Your task to perform on an android device: Open calendar and show me the fourth week of next month Image 0: 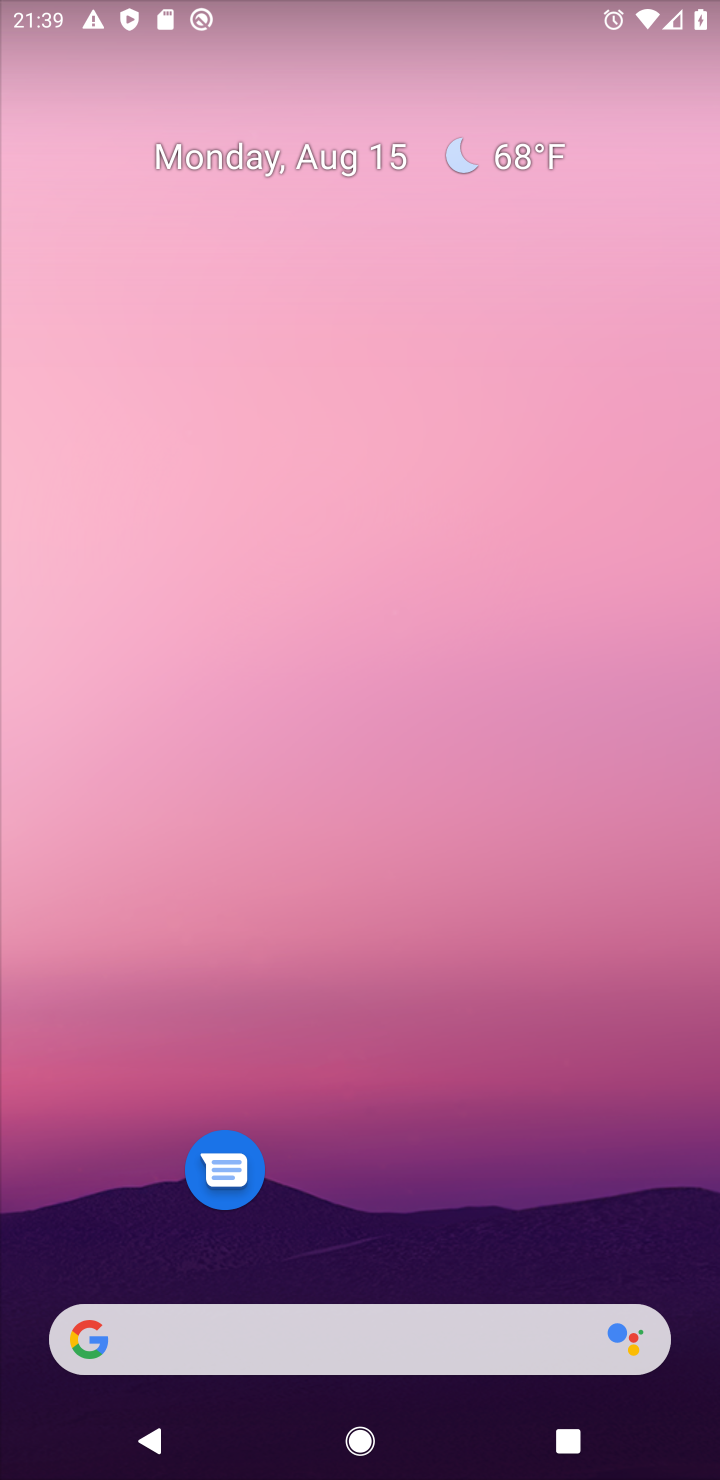
Step 0: drag from (590, 392) to (634, 2)
Your task to perform on an android device: Open calendar and show me the fourth week of next month Image 1: 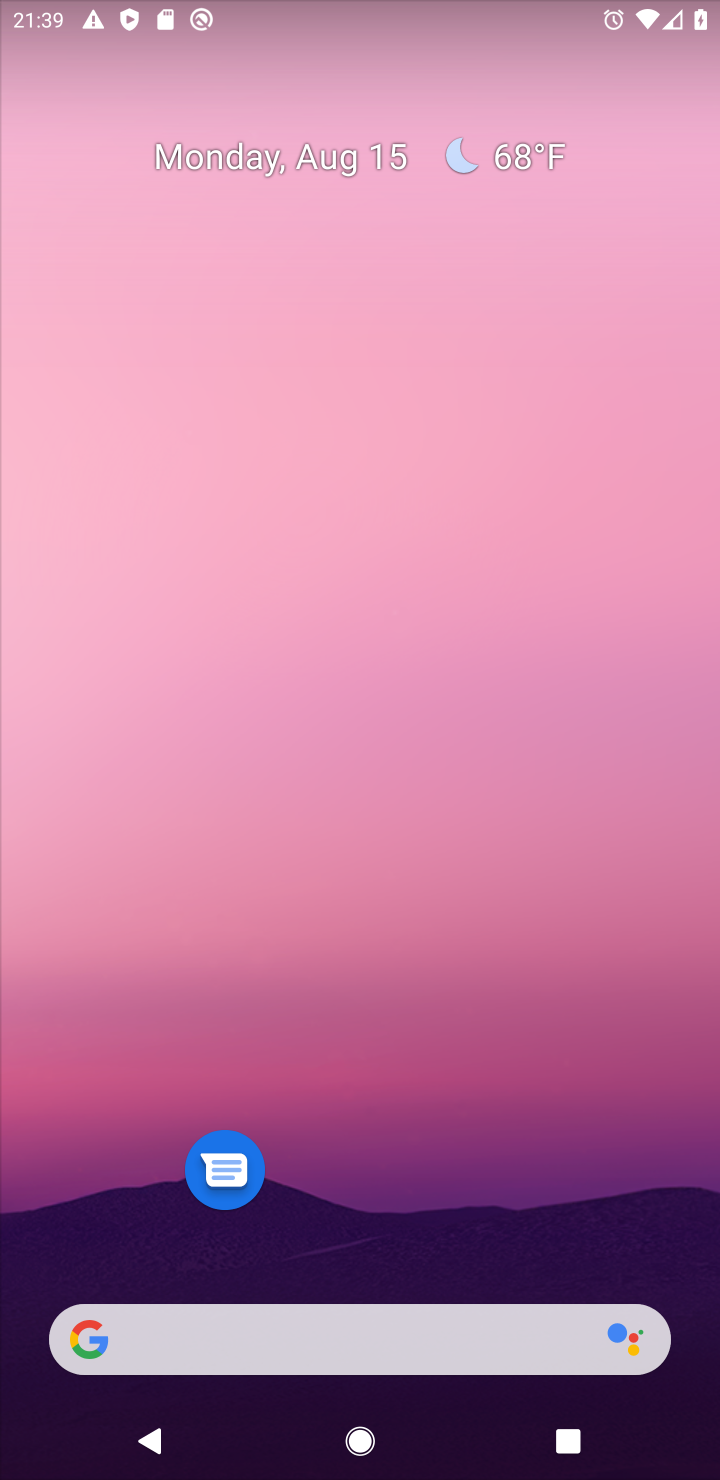
Step 1: drag from (458, 1357) to (477, 22)
Your task to perform on an android device: Open calendar and show me the fourth week of next month Image 2: 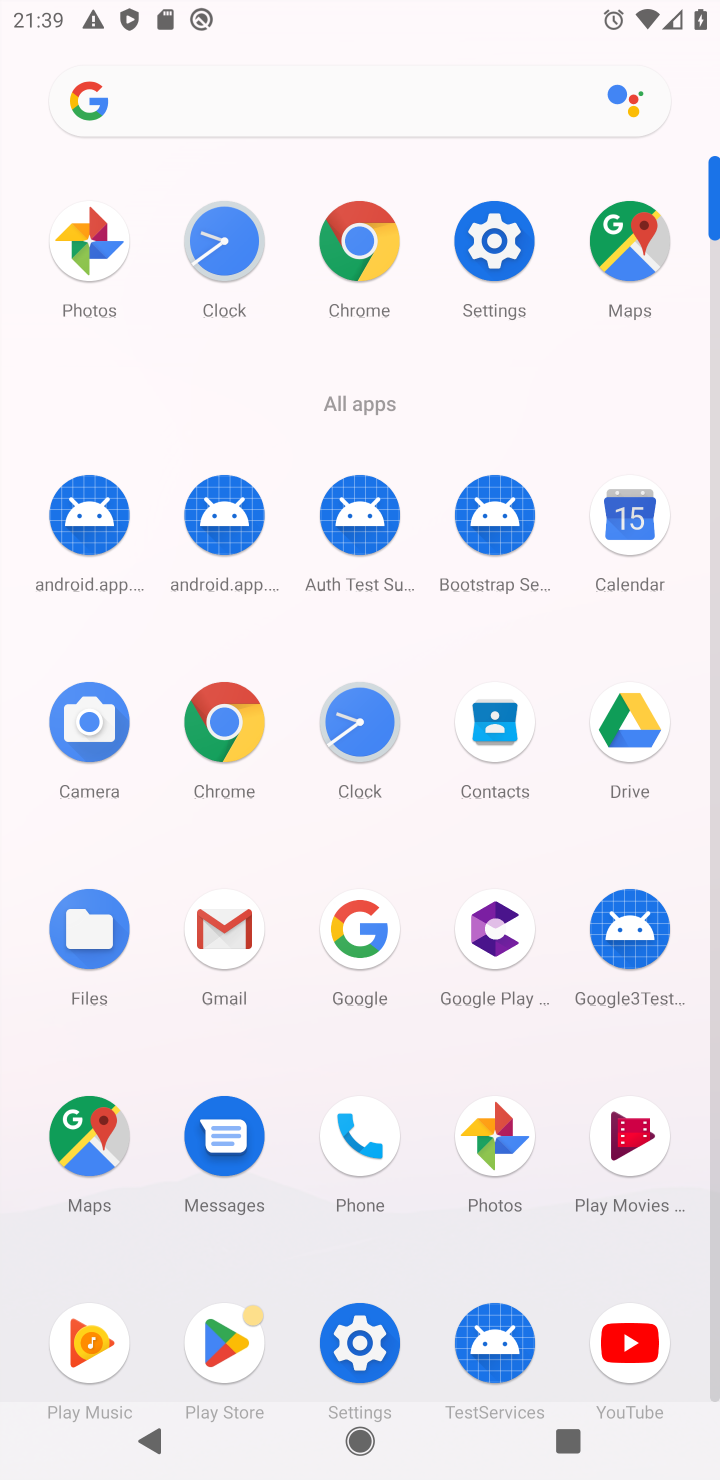
Step 2: click (642, 533)
Your task to perform on an android device: Open calendar and show me the fourth week of next month Image 3: 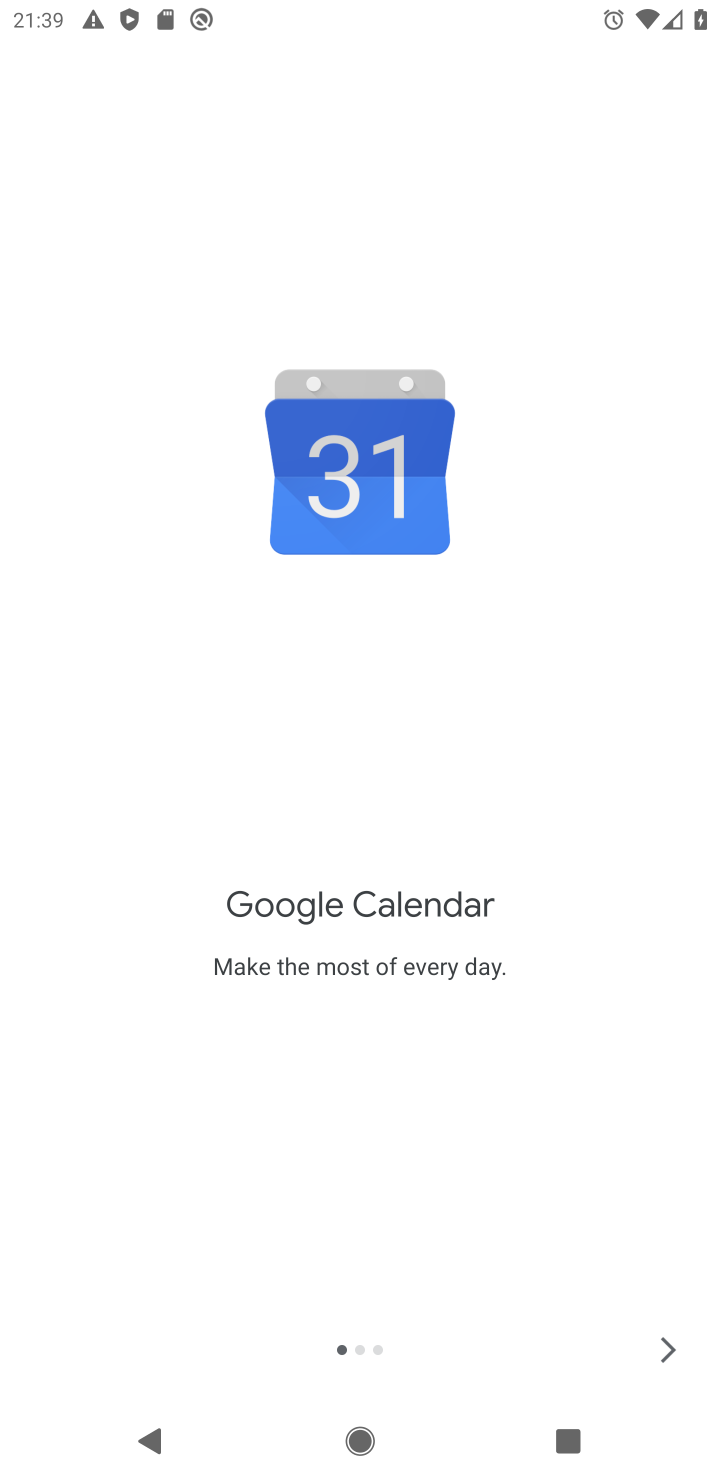
Step 3: click (661, 1360)
Your task to perform on an android device: Open calendar and show me the fourth week of next month Image 4: 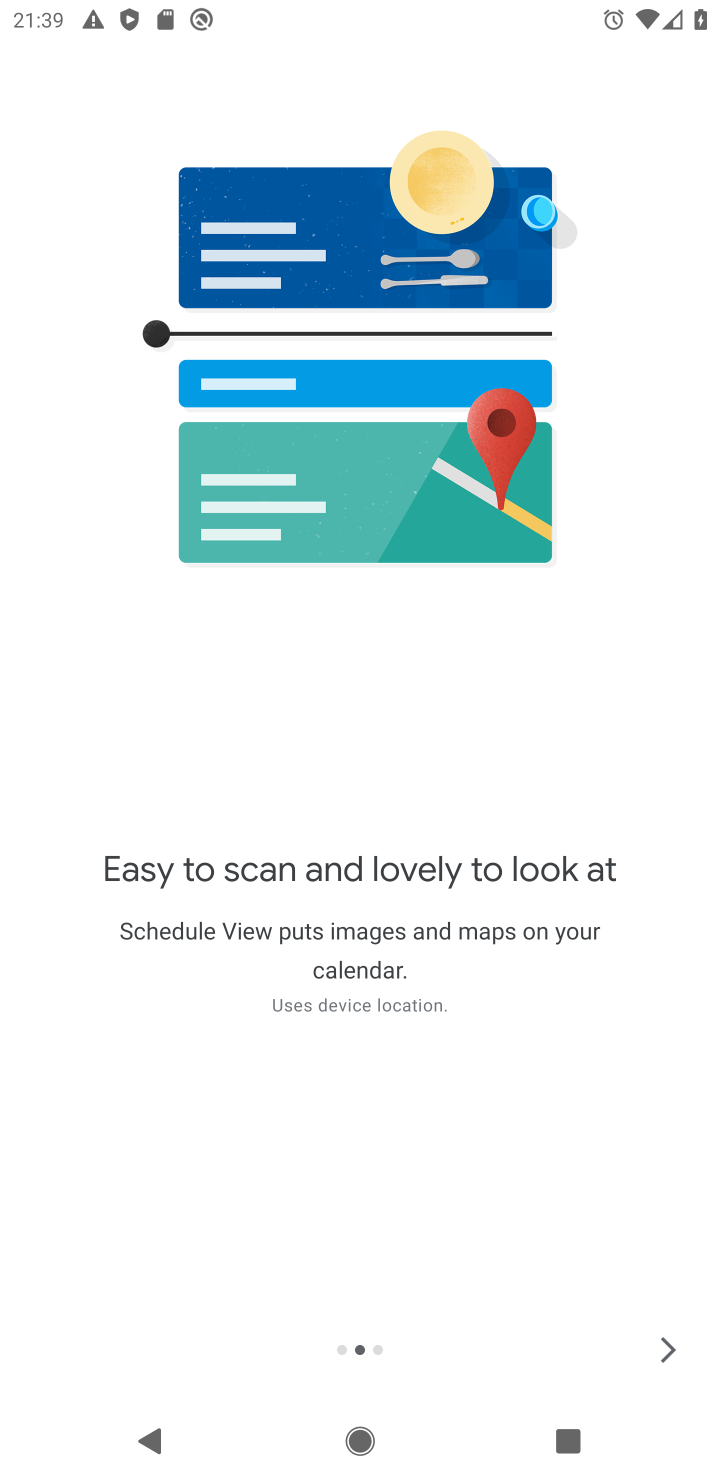
Step 4: click (665, 1351)
Your task to perform on an android device: Open calendar and show me the fourth week of next month Image 5: 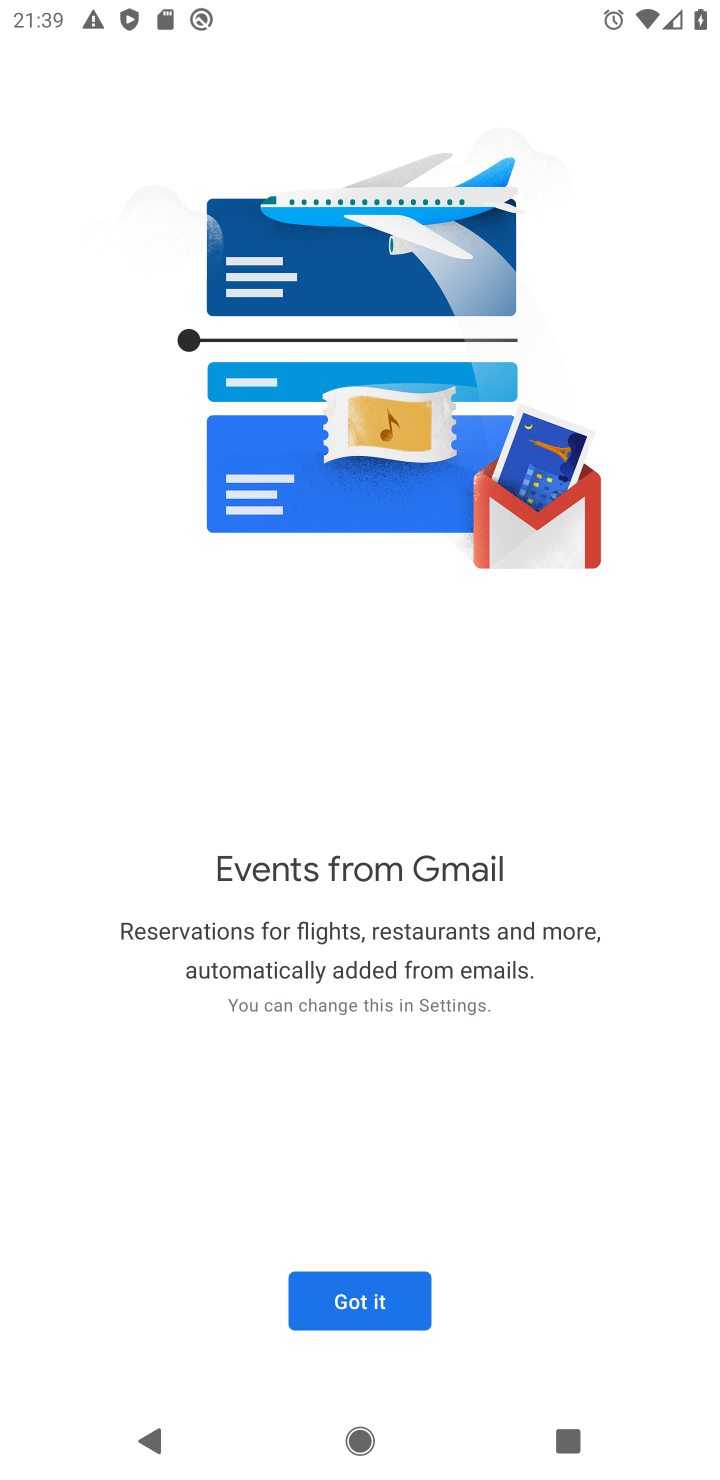
Step 5: click (394, 1298)
Your task to perform on an android device: Open calendar and show me the fourth week of next month Image 6: 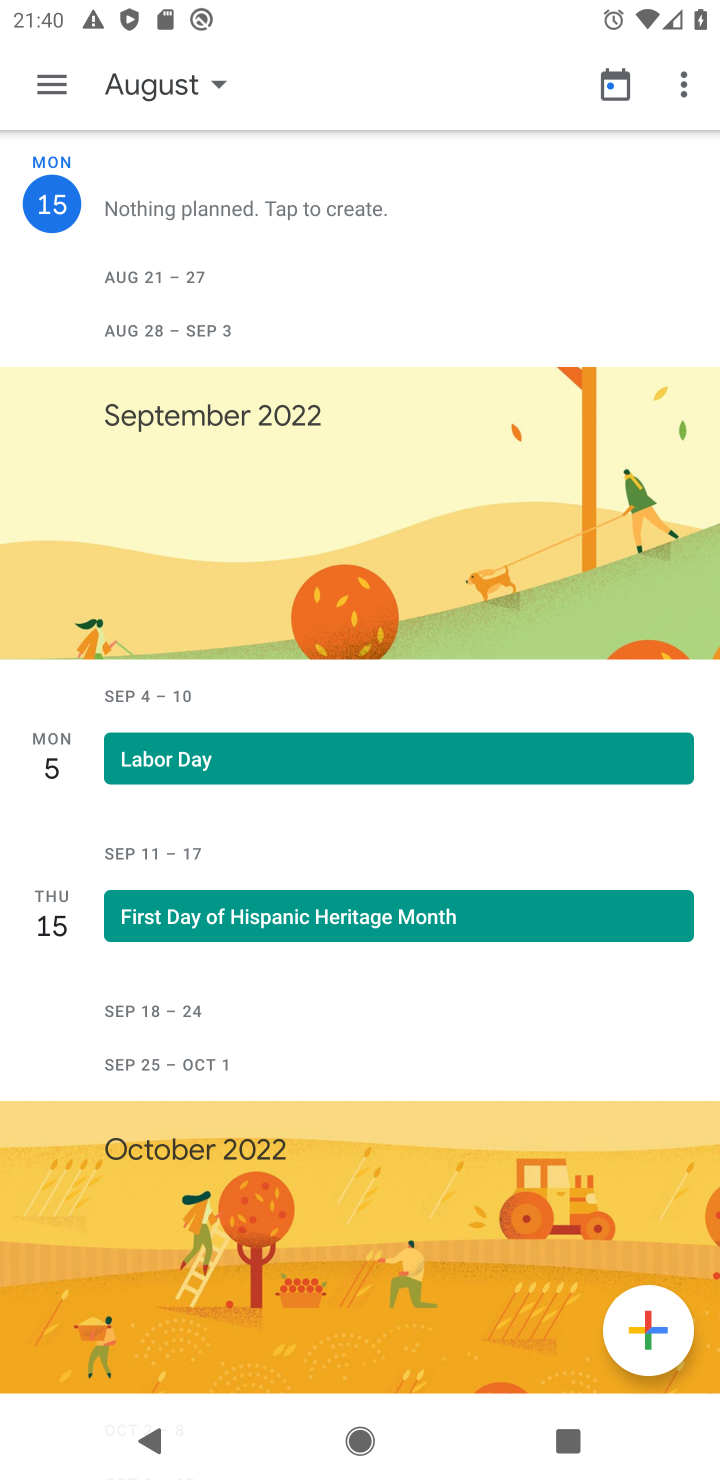
Step 6: click (121, 87)
Your task to perform on an android device: Open calendar and show me the fourth week of next month Image 7: 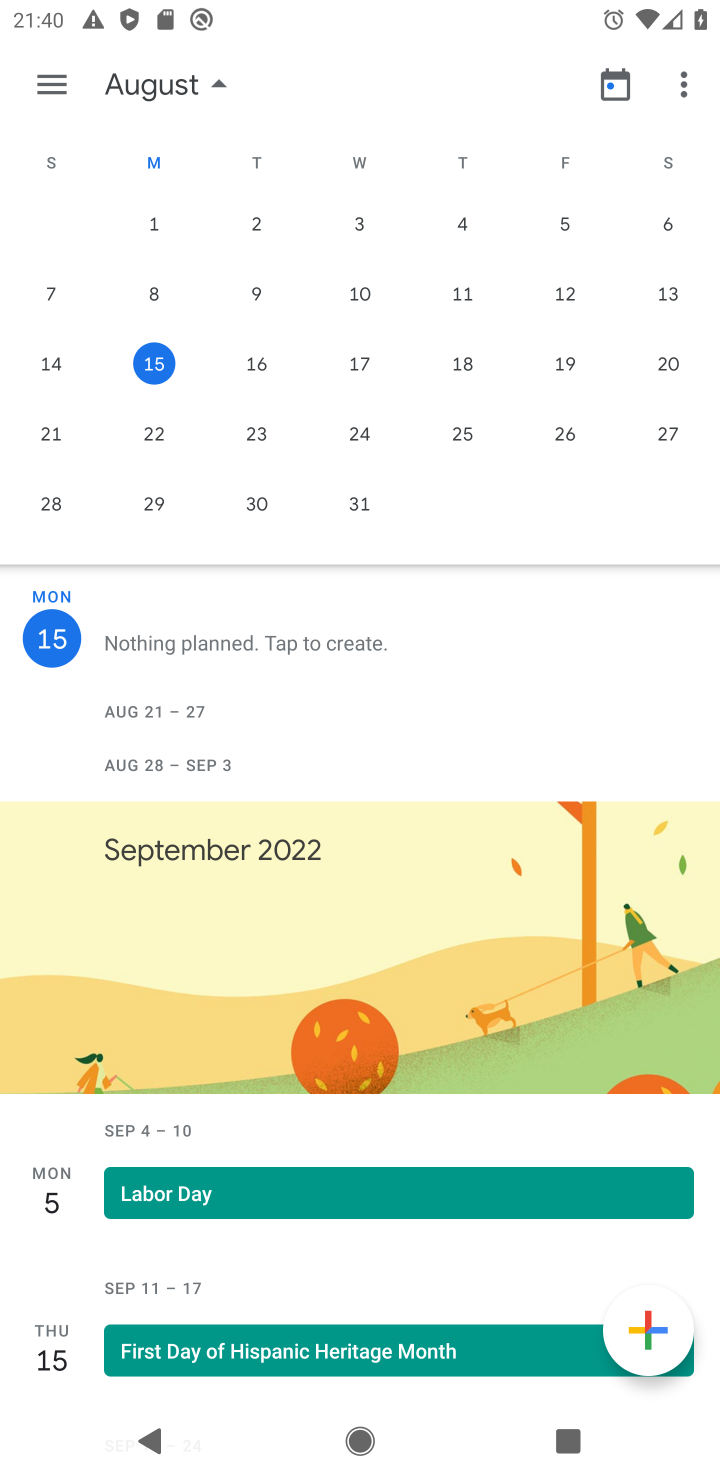
Step 7: drag from (88, 438) to (0, 423)
Your task to perform on an android device: Open calendar and show me the fourth week of next month Image 8: 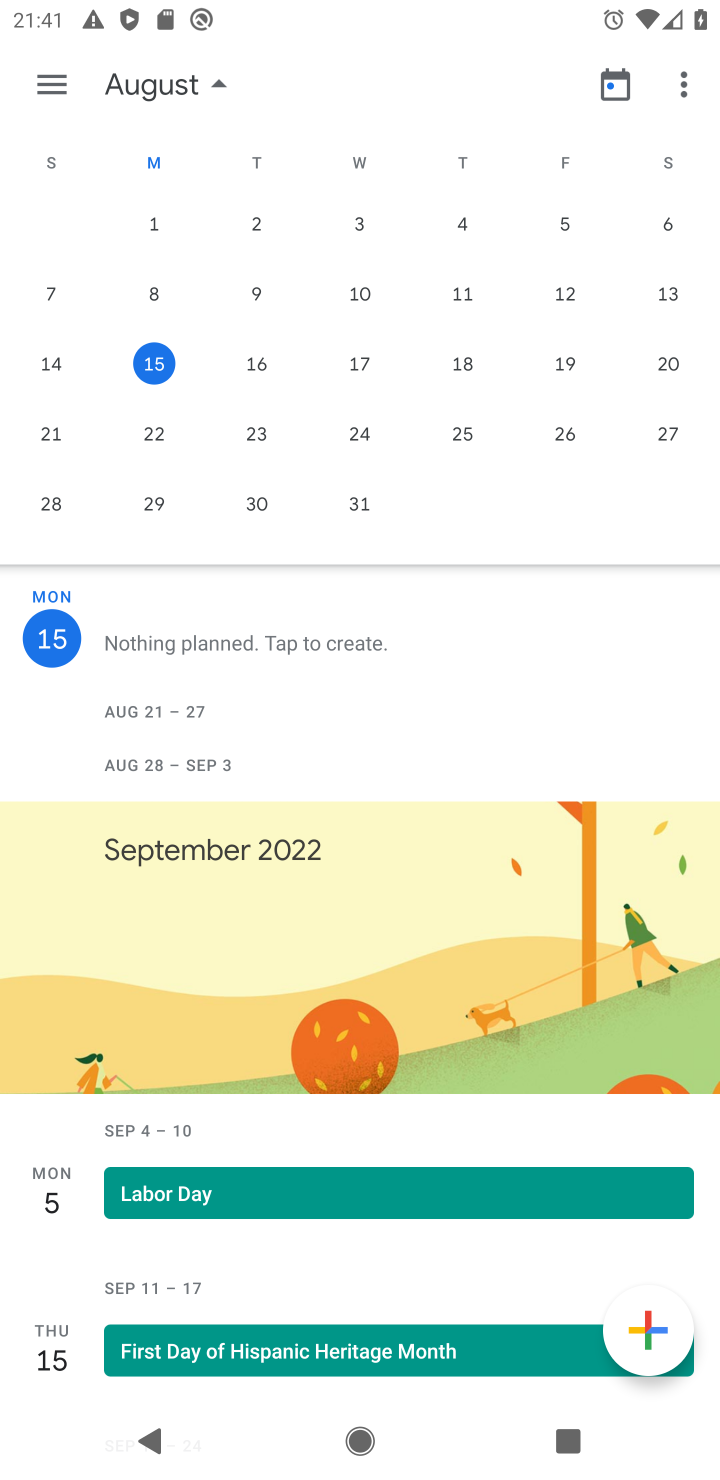
Step 8: click (39, 521)
Your task to perform on an android device: Open calendar and show me the fourth week of next month Image 9: 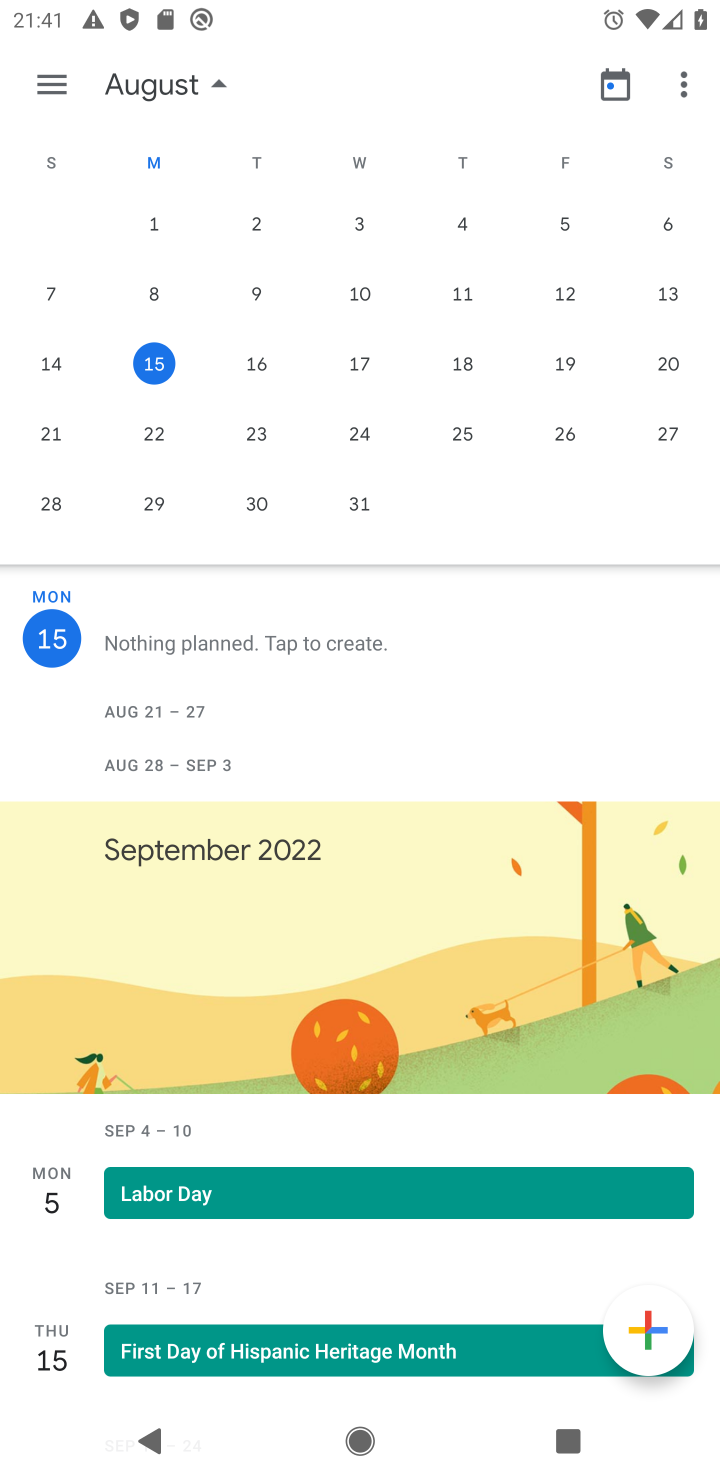
Step 9: click (46, 504)
Your task to perform on an android device: Open calendar and show me the fourth week of next month Image 10: 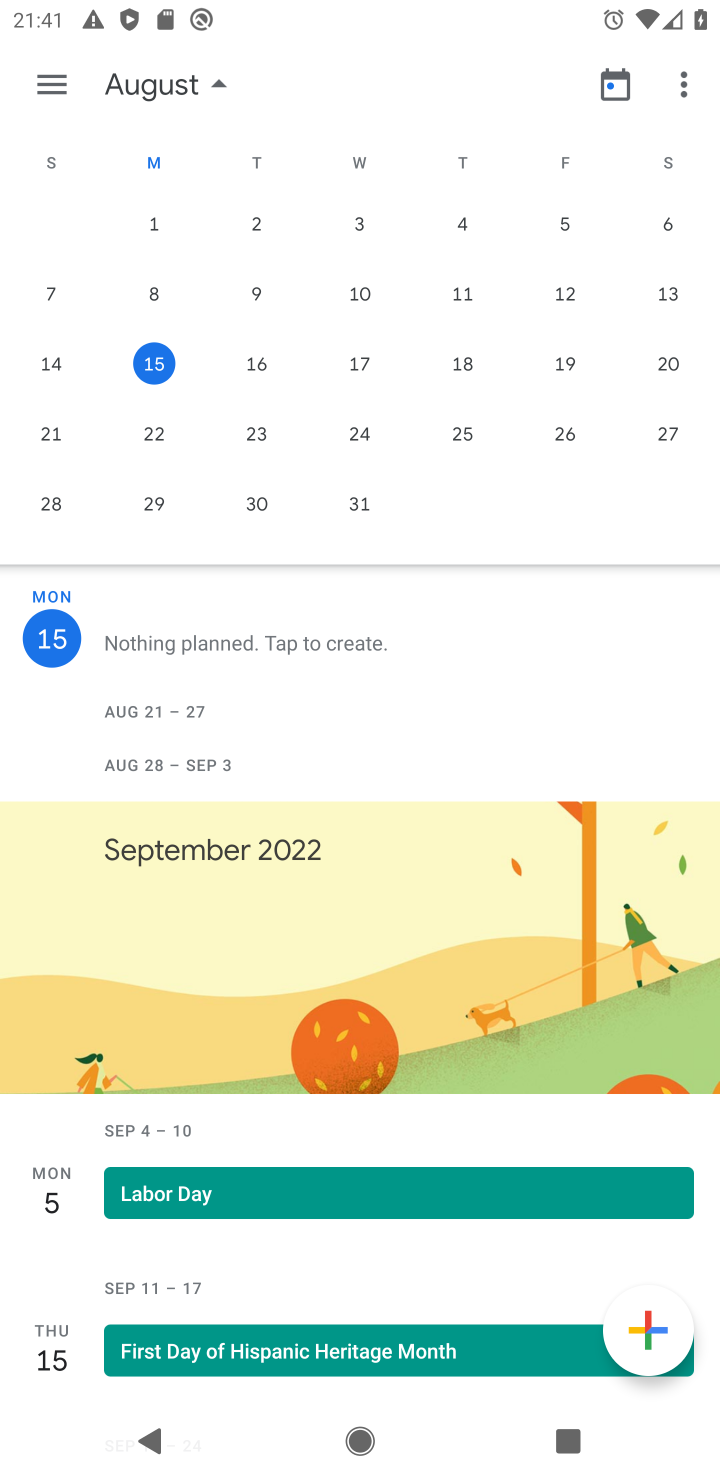
Step 10: click (48, 504)
Your task to perform on an android device: Open calendar and show me the fourth week of next month Image 11: 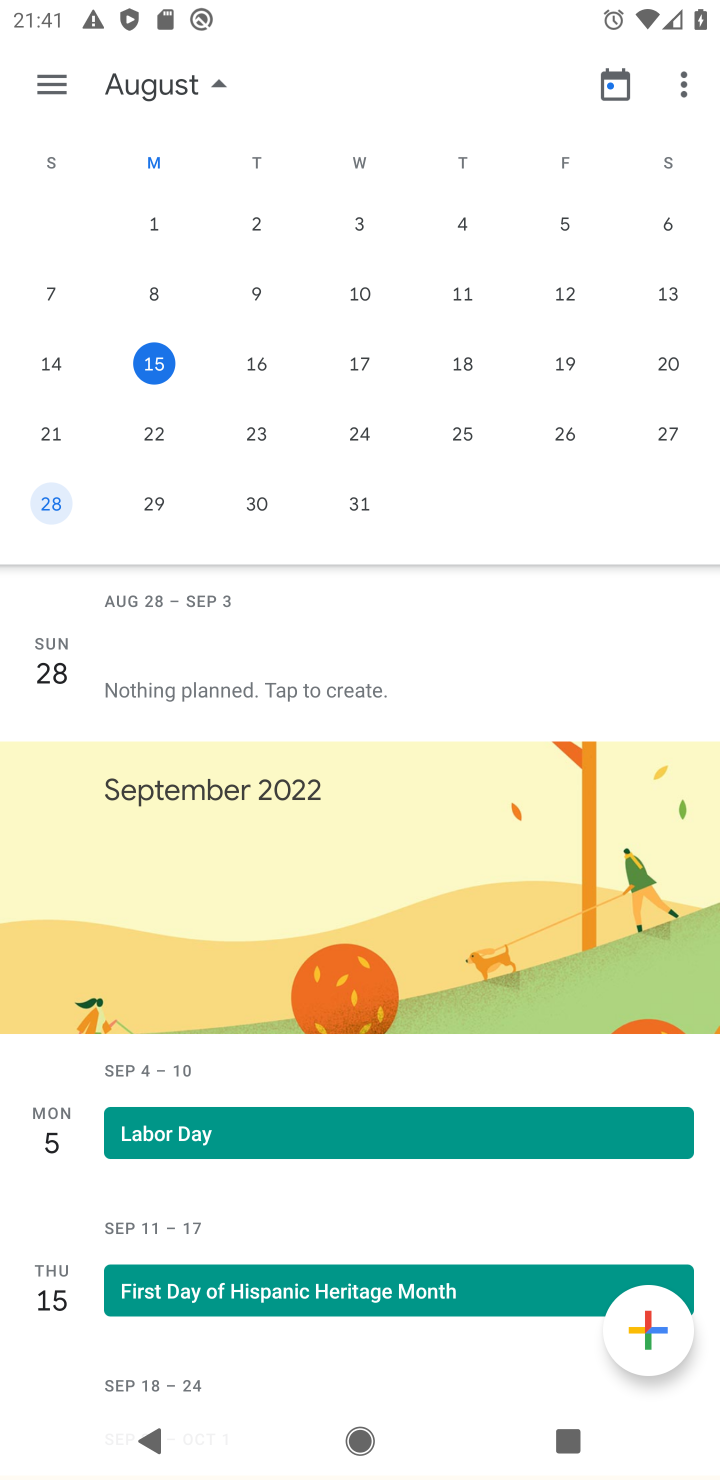
Step 11: task complete